Your task to perform on an android device: Open the map Image 0: 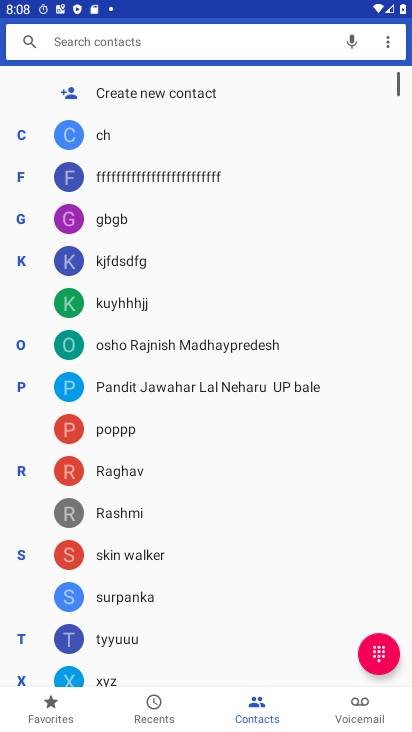
Step 0: press home button
Your task to perform on an android device: Open the map Image 1: 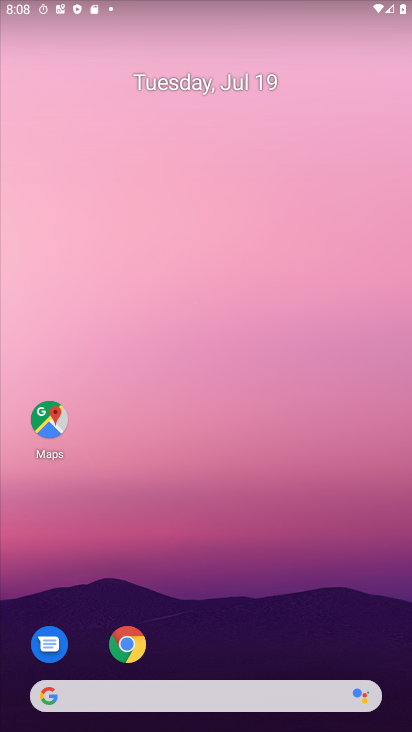
Step 1: click (43, 420)
Your task to perform on an android device: Open the map Image 2: 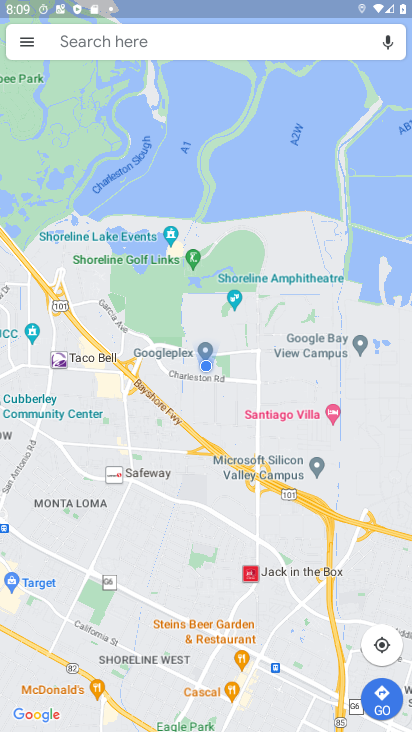
Step 2: task complete